Your task to perform on an android device: turn on improve location accuracy Image 0: 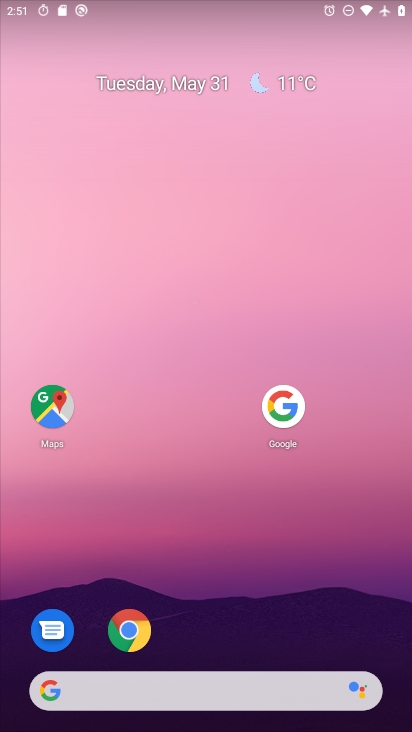
Step 0: drag from (132, 686) to (256, 132)
Your task to perform on an android device: turn on improve location accuracy Image 1: 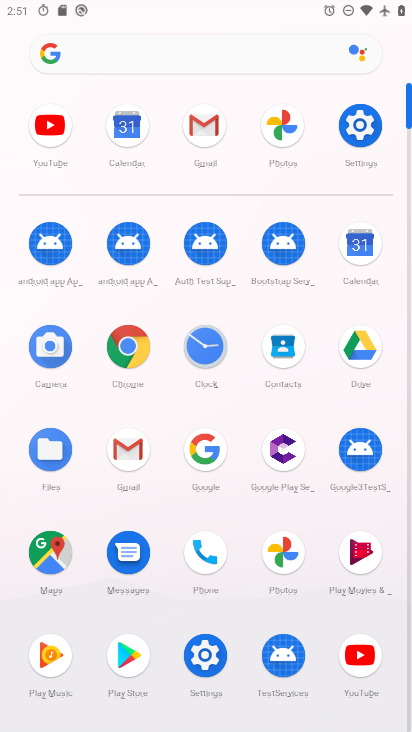
Step 1: click (370, 128)
Your task to perform on an android device: turn on improve location accuracy Image 2: 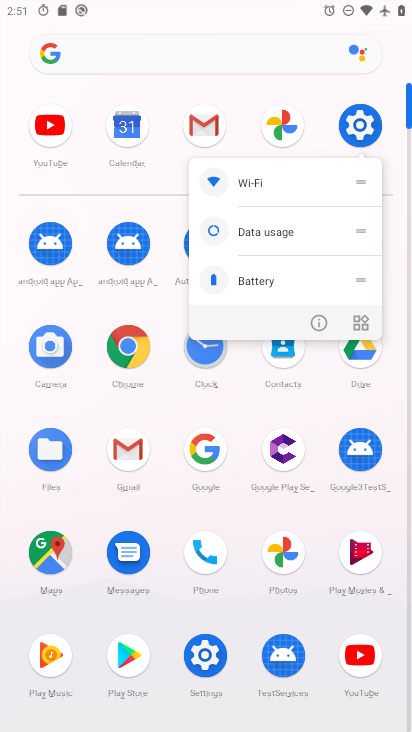
Step 2: click (349, 134)
Your task to perform on an android device: turn on improve location accuracy Image 3: 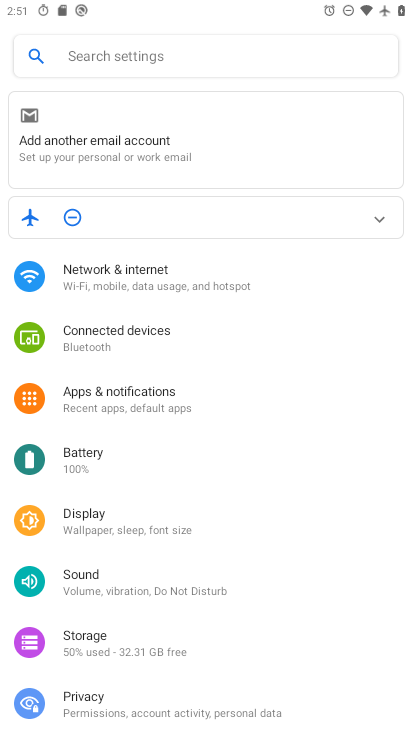
Step 3: drag from (173, 636) to (298, 248)
Your task to perform on an android device: turn on improve location accuracy Image 4: 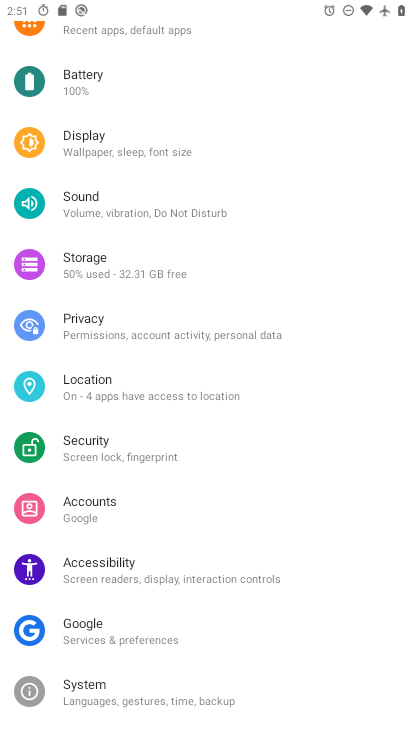
Step 4: click (138, 386)
Your task to perform on an android device: turn on improve location accuracy Image 5: 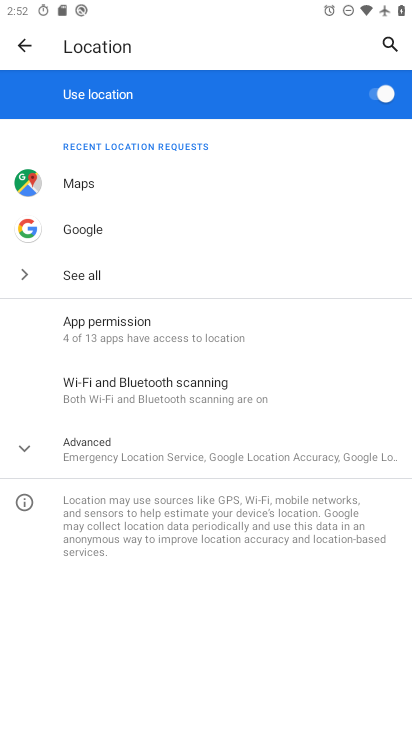
Step 5: click (142, 464)
Your task to perform on an android device: turn on improve location accuracy Image 6: 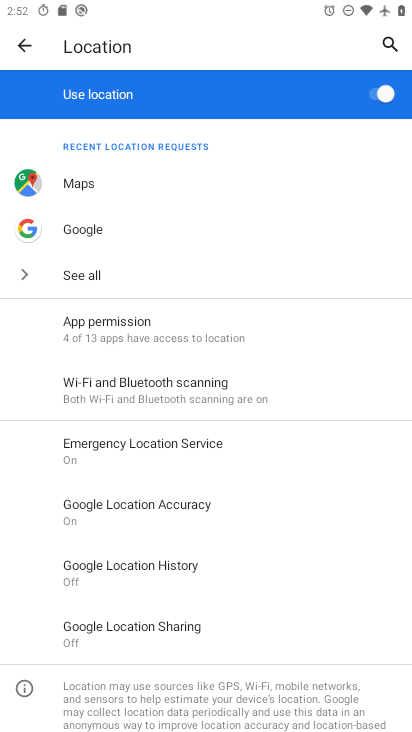
Step 6: click (160, 509)
Your task to perform on an android device: turn on improve location accuracy Image 7: 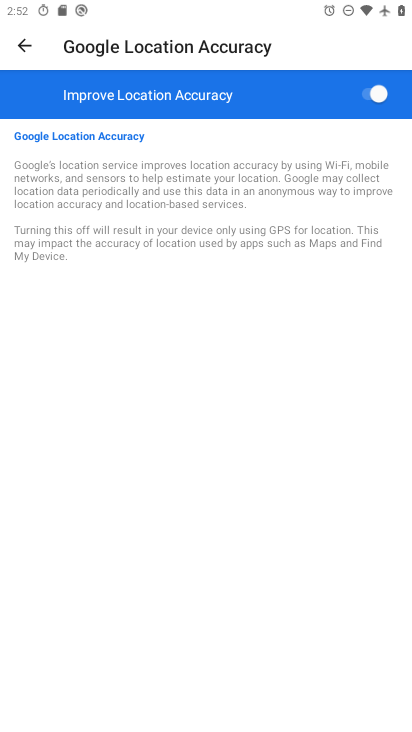
Step 7: task complete